Your task to perform on an android device: Open sound settings Image 0: 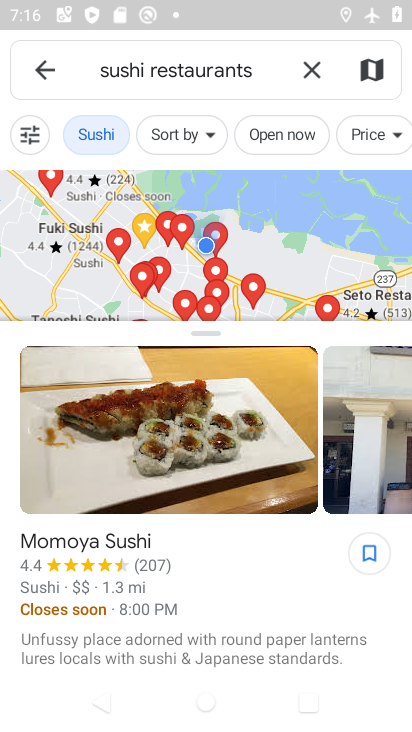
Step 0: press back button
Your task to perform on an android device: Open sound settings Image 1: 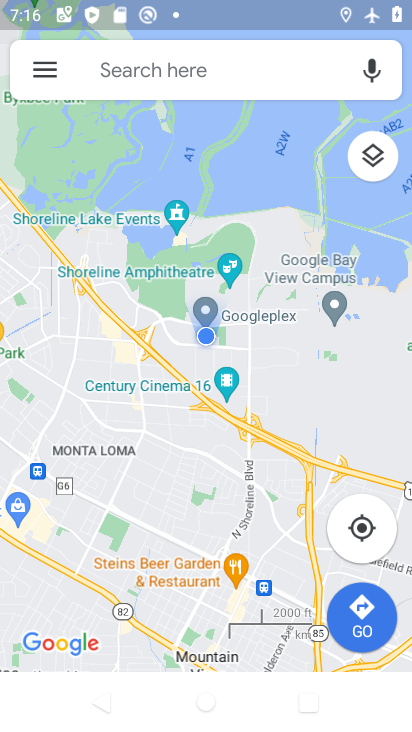
Step 1: press back button
Your task to perform on an android device: Open sound settings Image 2: 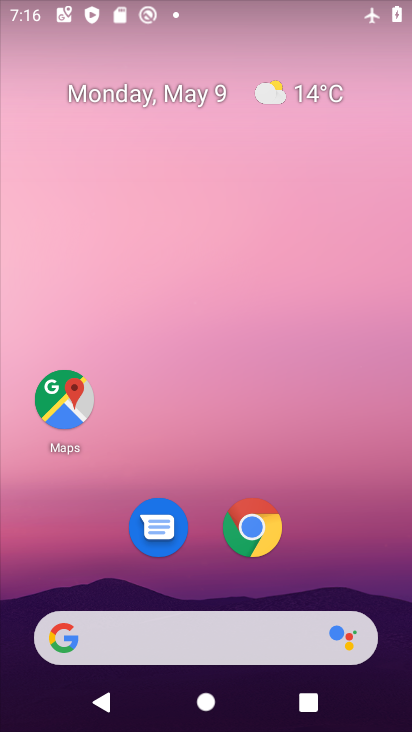
Step 2: drag from (309, 567) to (222, 43)
Your task to perform on an android device: Open sound settings Image 3: 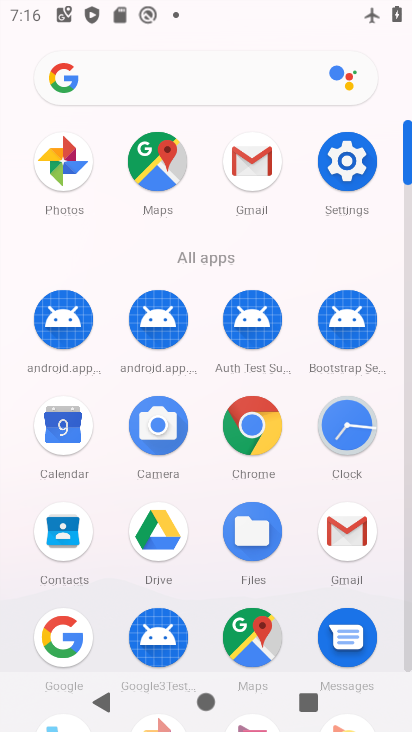
Step 3: click (348, 159)
Your task to perform on an android device: Open sound settings Image 4: 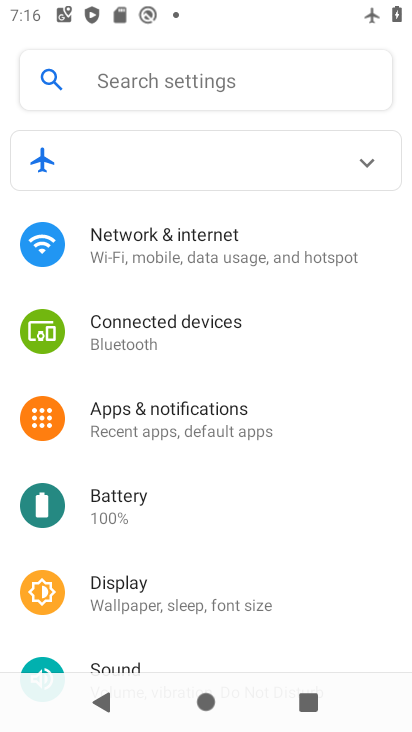
Step 4: drag from (168, 538) to (234, 379)
Your task to perform on an android device: Open sound settings Image 5: 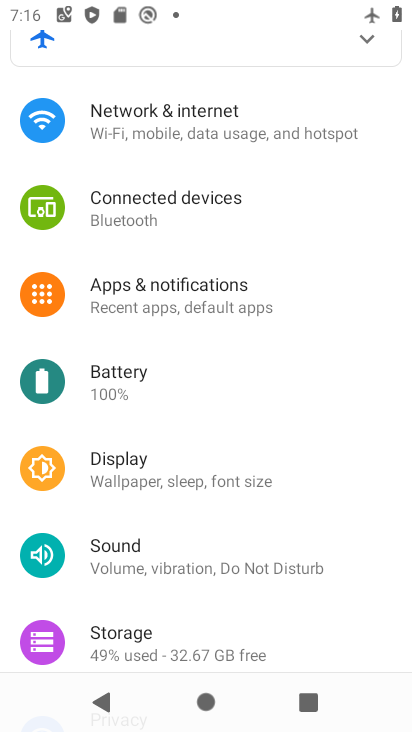
Step 5: click (131, 547)
Your task to perform on an android device: Open sound settings Image 6: 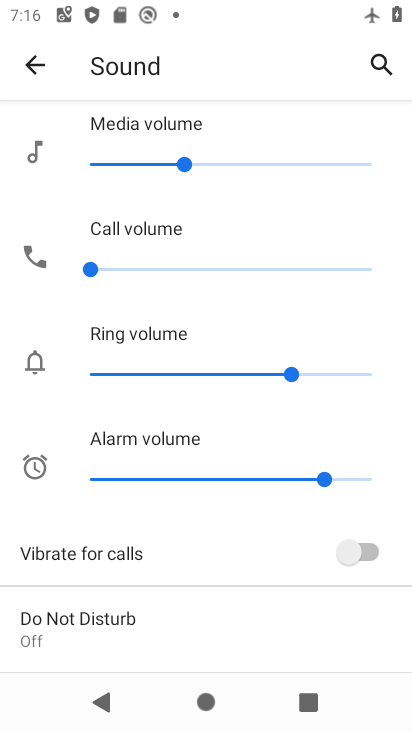
Step 6: task complete